Your task to perform on an android device: toggle sleep mode Image 0: 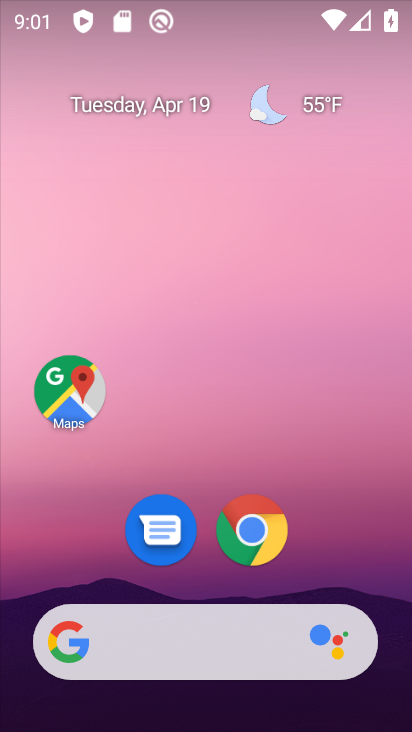
Step 0: drag from (336, 504) to (315, 139)
Your task to perform on an android device: toggle sleep mode Image 1: 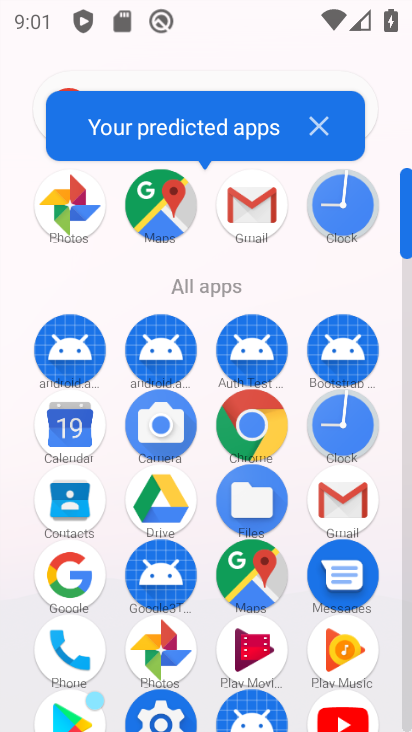
Step 1: click (163, 717)
Your task to perform on an android device: toggle sleep mode Image 2: 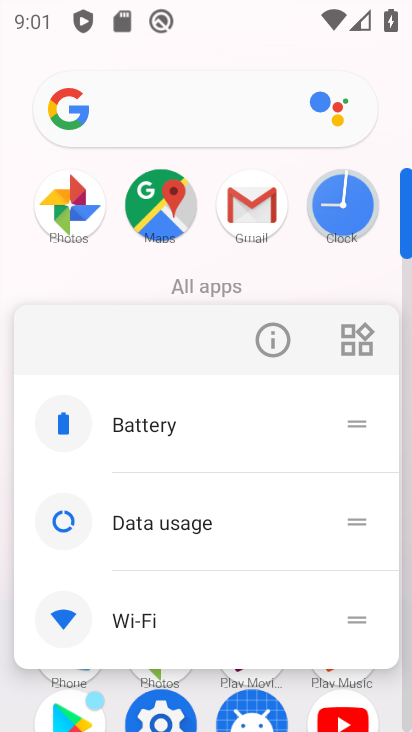
Step 2: click (159, 724)
Your task to perform on an android device: toggle sleep mode Image 3: 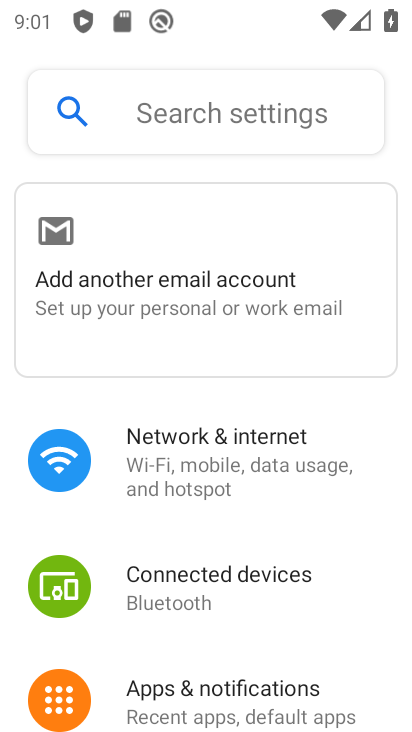
Step 3: drag from (259, 608) to (278, 382)
Your task to perform on an android device: toggle sleep mode Image 4: 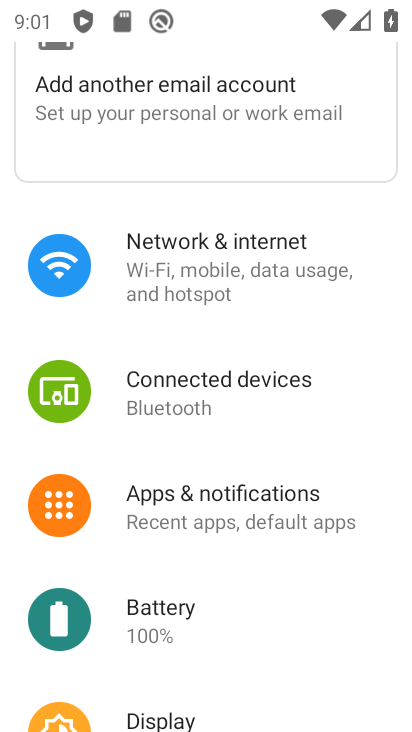
Step 4: drag from (241, 588) to (248, 335)
Your task to perform on an android device: toggle sleep mode Image 5: 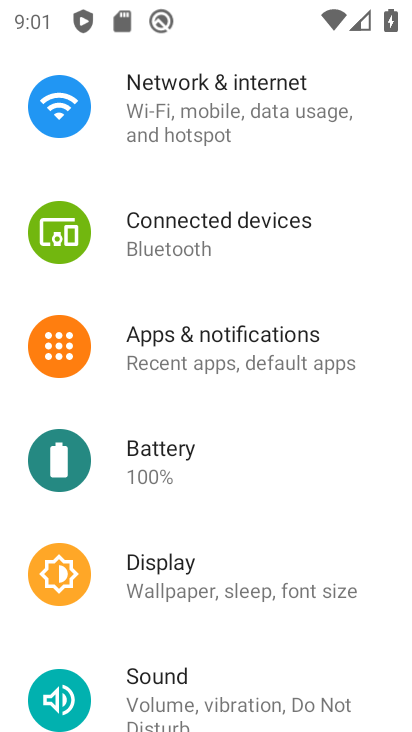
Step 5: click (160, 574)
Your task to perform on an android device: toggle sleep mode Image 6: 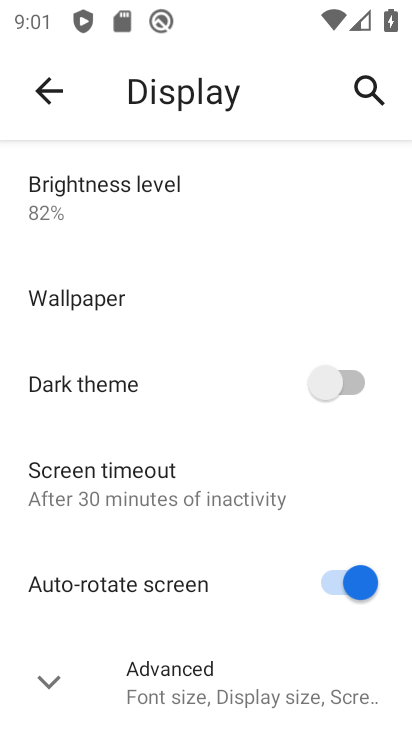
Step 6: click (158, 488)
Your task to perform on an android device: toggle sleep mode Image 7: 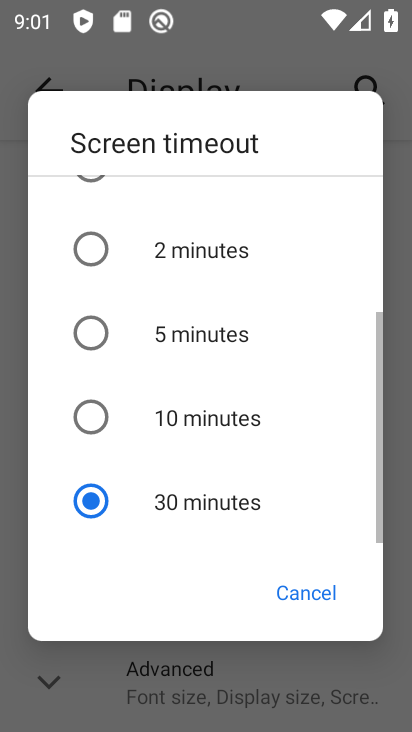
Step 7: click (83, 415)
Your task to perform on an android device: toggle sleep mode Image 8: 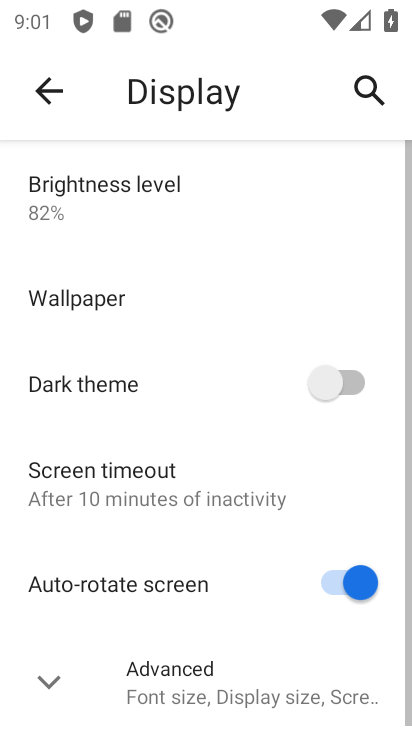
Step 8: task complete